Your task to perform on an android device: What's the weather going to be tomorrow? Image 0: 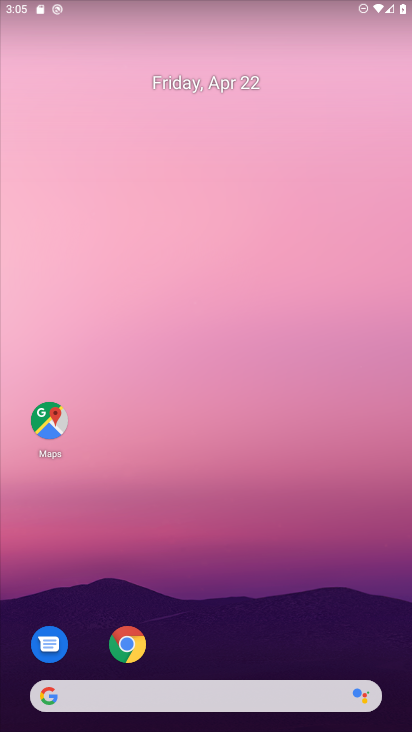
Step 0: drag from (265, 647) to (214, 217)
Your task to perform on an android device: What's the weather going to be tomorrow? Image 1: 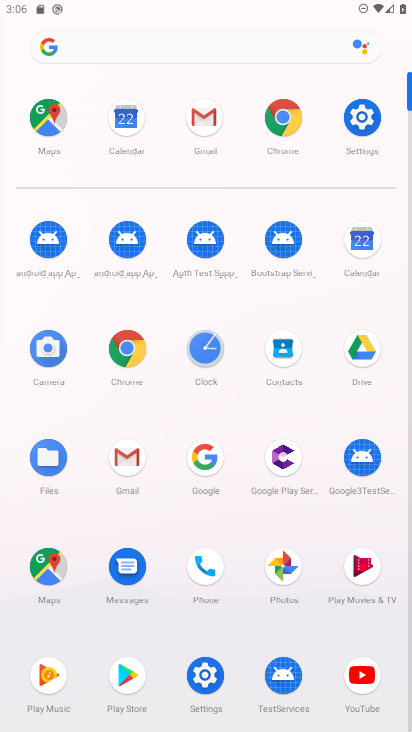
Step 1: click (133, 345)
Your task to perform on an android device: What's the weather going to be tomorrow? Image 2: 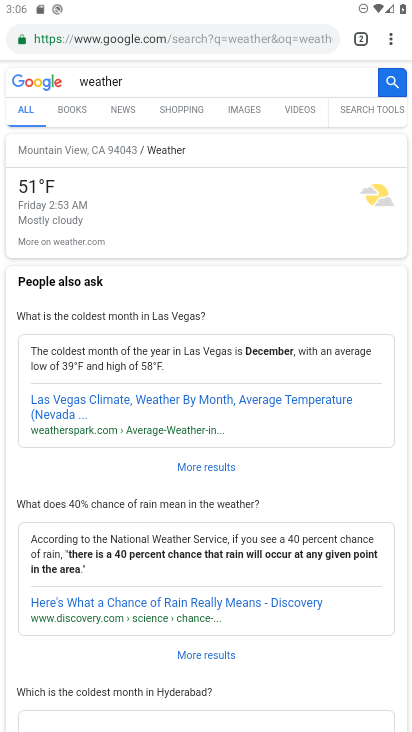
Step 2: click (148, 81)
Your task to perform on an android device: What's the weather going to be tomorrow? Image 3: 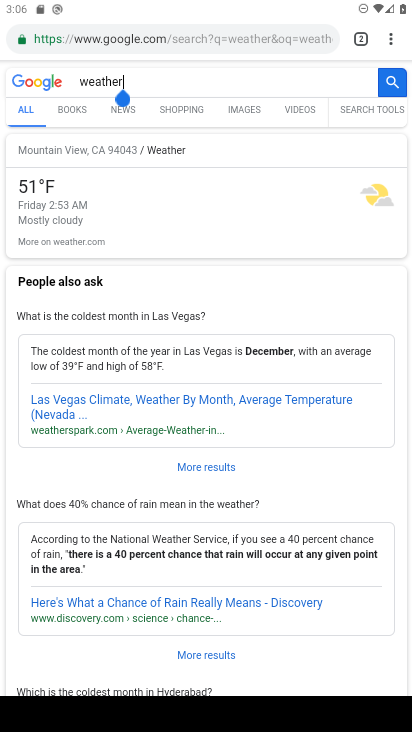
Step 3: click (156, 38)
Your task to perform on an android device: What's the weather going to be tomorrow? Image 4: 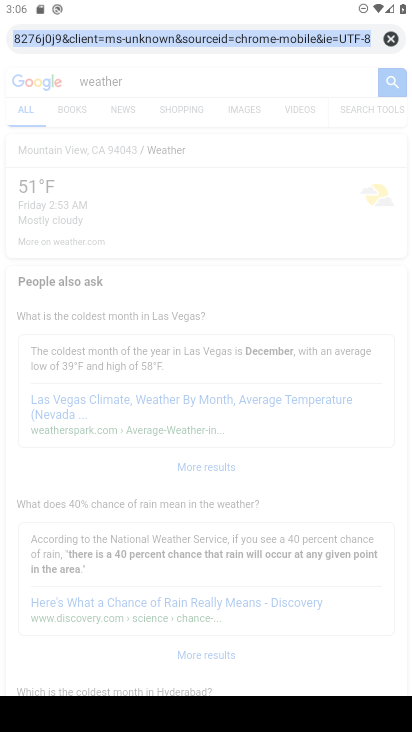
Step 4: type "weather"
Your task to perform on an android device: What's the weather going to be tomorrow? Image 5: 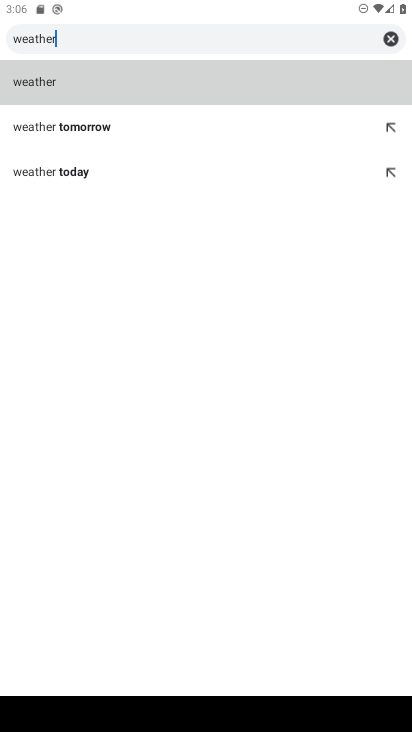
Step 5: click (30, 83)
Your task to perform on an android device: What's the weather going to be tomorrow? Image 6: 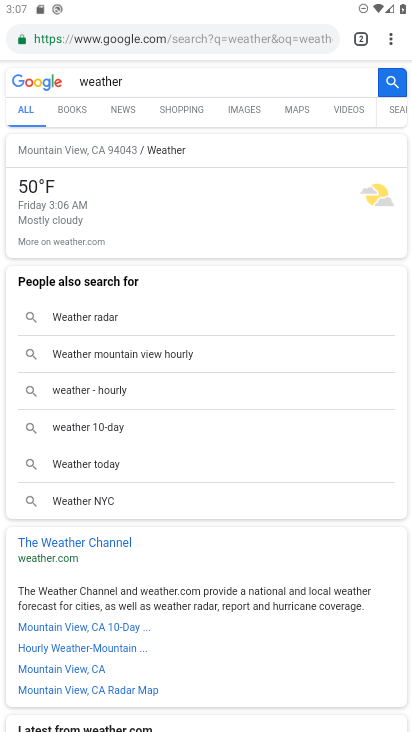
Step 6: click (183, 154)
Your task to perform on an android device: What's the weather going to be tomorrow? Image 7: 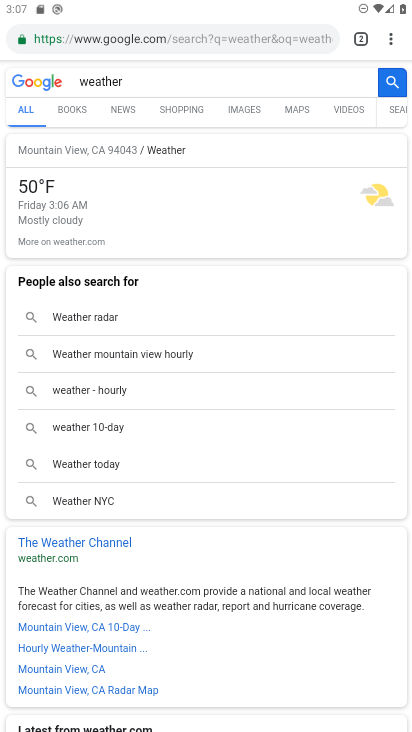
Step 7: click (184, 149)
Your task to perform on an android device: What's the weather going to be tomorrow? Image 8: 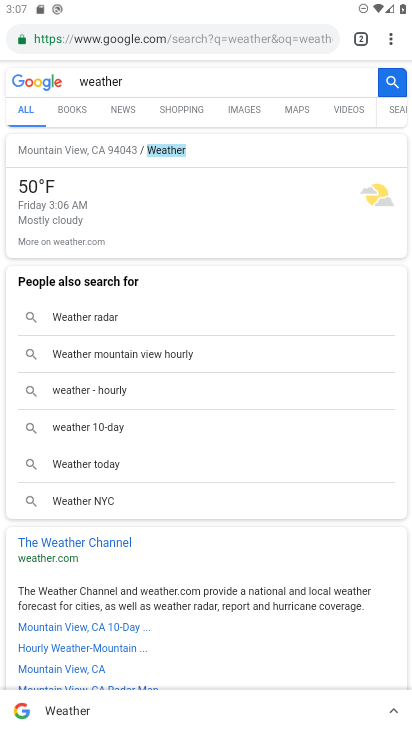
Step 8: click (173, 151)
Your task to perform on an android device: What's the weather going to be tomorrow? Image 9: 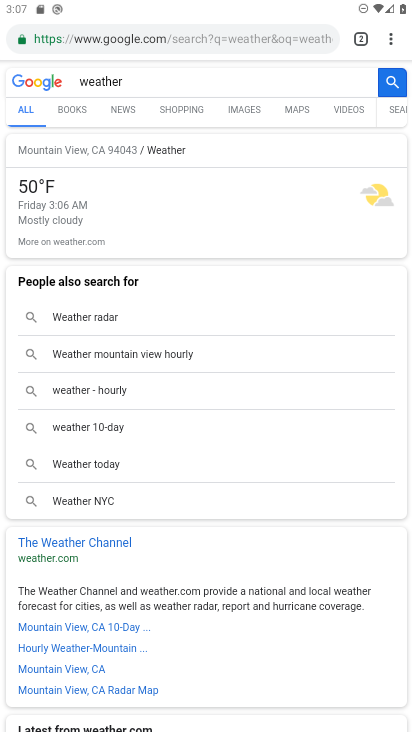
Step 9: click (172, 152)
Your task to perform on an android device: What's the weather going to be tomorrow? Image 10: 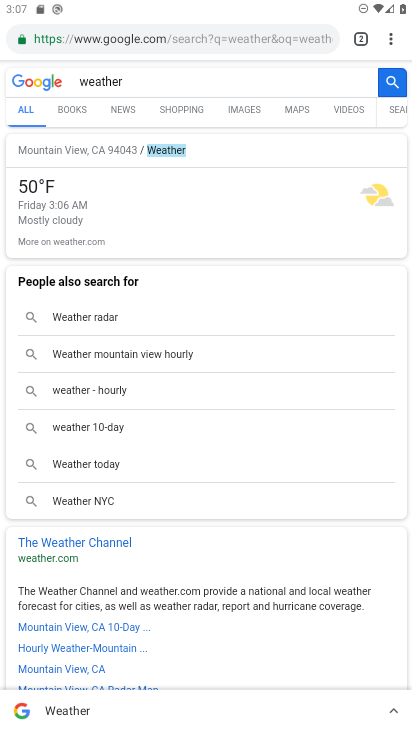
Step 10: click (54, 242)
Your task to perform on an android device: What's the weather going to be tomorrow? Image 11: 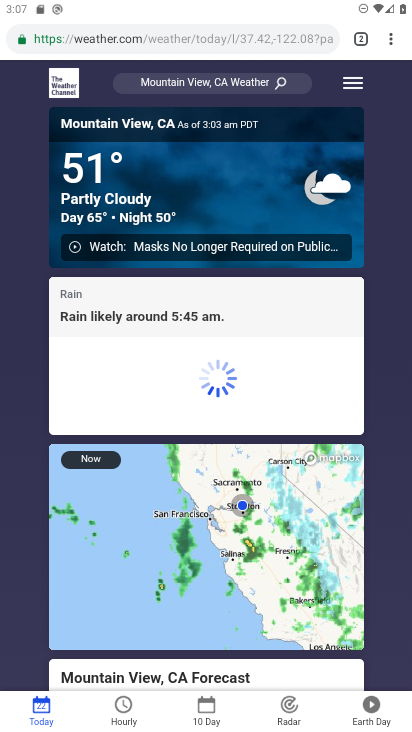
Step 11: click (207, 701)
Your task to perform on an android device: What's the weather going to be tomorrow? Image 12: 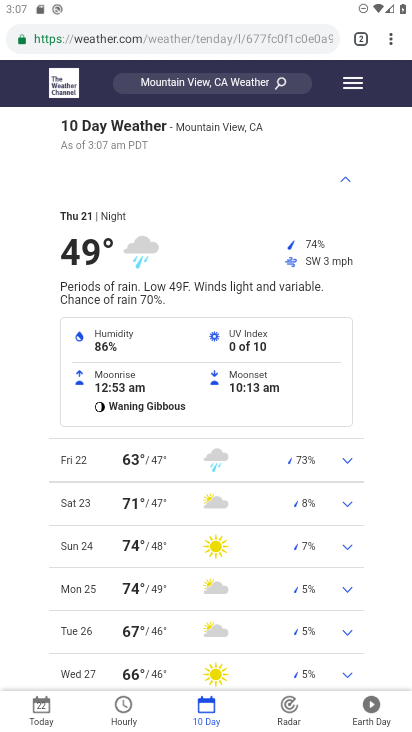
Step 12: drag from (226, 607) to (294, 251)
Your task to perform on an android device: What's the weather going to be tomorrow? Image 13: 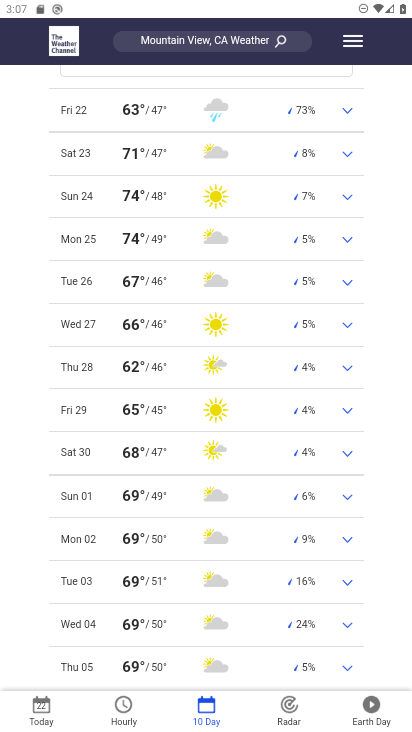
Step 13: drag from (197, 144) to (330, 410)
Your task to perform on an android device: What's the weather going to be tomorrow? Image 14: 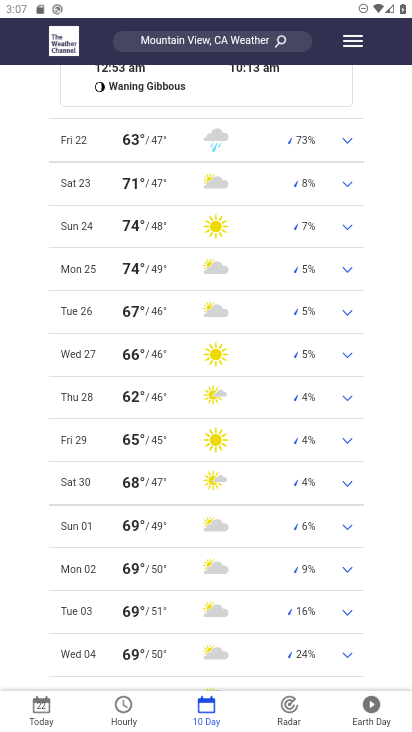
Step 14: click (97, 135)
Your task to perform on an android device: What's the weather going to be tomorrow? Image 15: 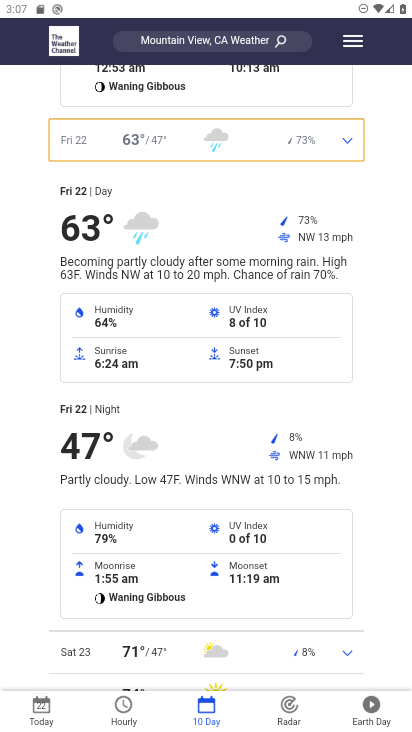
Step 15: task complete